Your task to perform on an android device: turn off improve location accuracy Image 0: 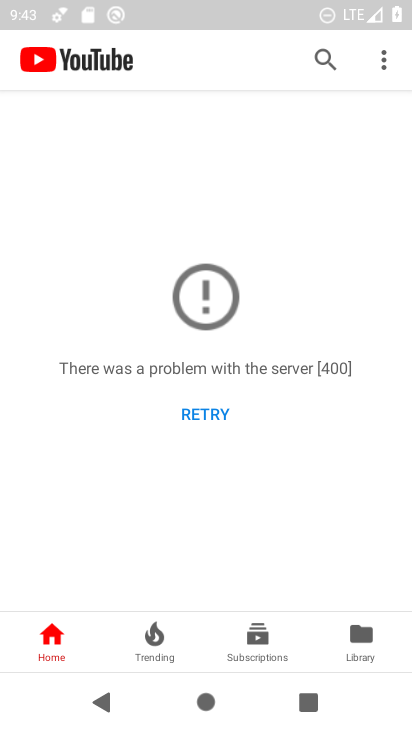
Step 0: press home button
Your task to perform on an android device: turn off improve location accuracy Image 1: 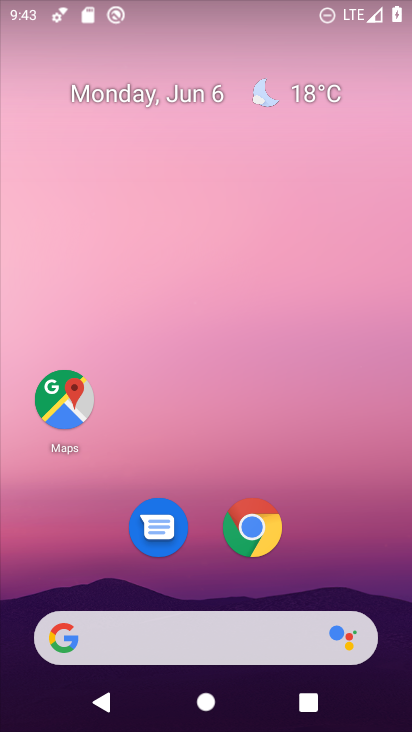
Step 1: drag from (350, 572) to (368, 161)
Your task to perform on an android device: turn off improve location accuracy Image 2: 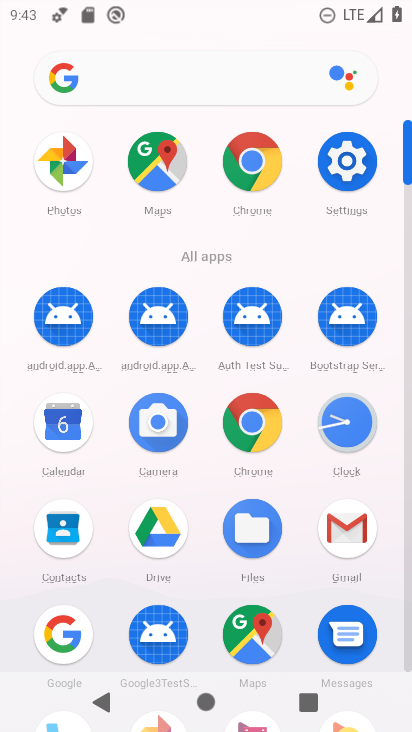
Step 2: click (354, 183)
Your task to perform on an android device: turn off improve location accuracy Image 3: 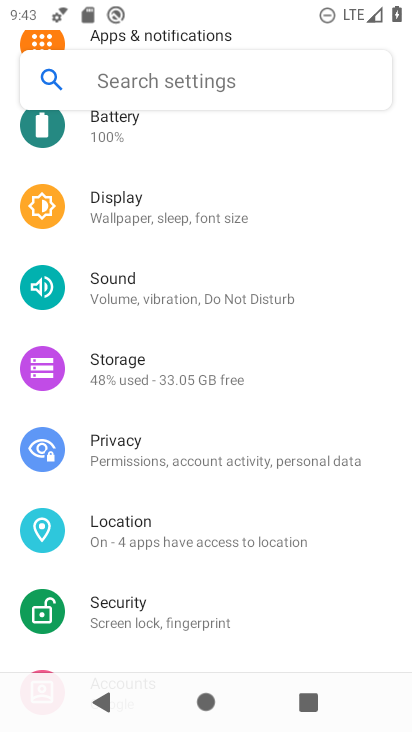
Step 3: drag from (306, 455) to (328, 248)
Your task to perform on an android device: turn off improve location accuracy Image 4: 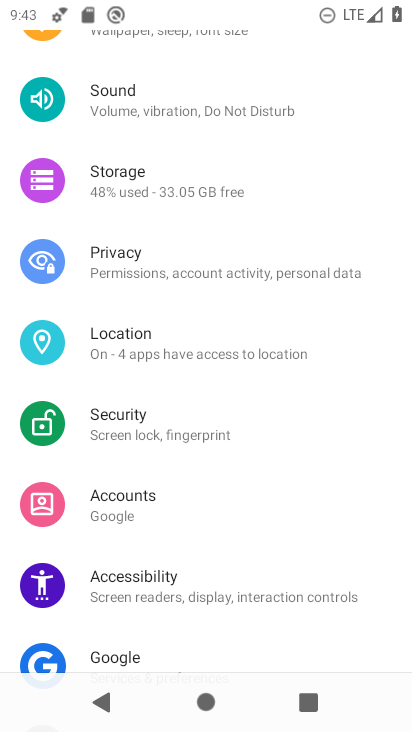
Step 4: drag from (331, 503) to (330, 294)
Your task to perform on an android device: turn off improve location accuracy Image 5: 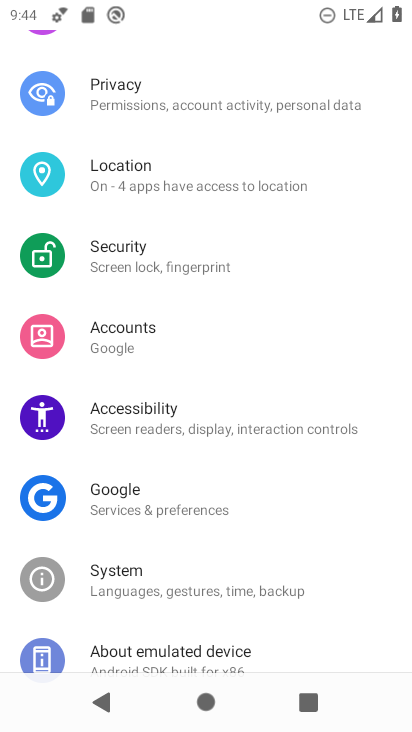
Step 5: drag from (319, 493) to (318, 353)
Your task to perform on an android device: turn off improve location accuracy Image 6: 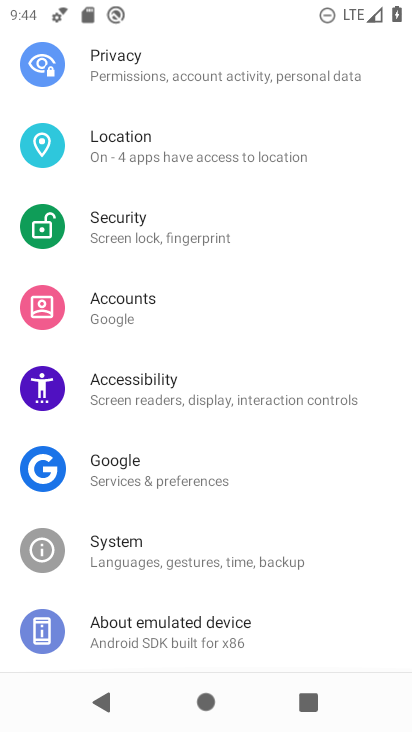
Step 6: drag from (317, 227) to (313, 399)
Your task to perform on an android device: turn off improve location accuracy Image 7: 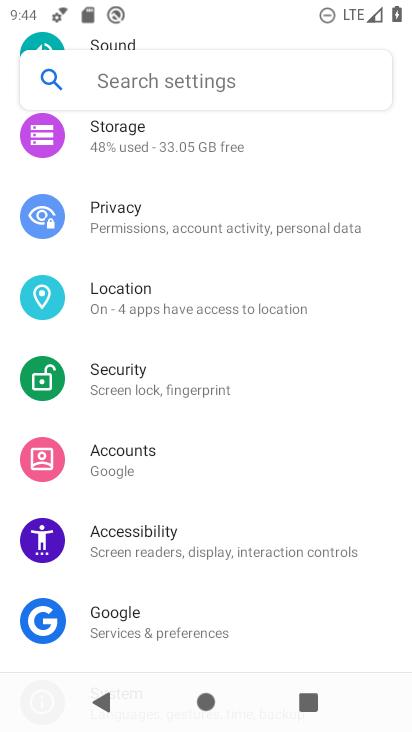
Step 7: click (248, 312)
Your task to perform on an android device: turn off improve location accuracy Image 8: 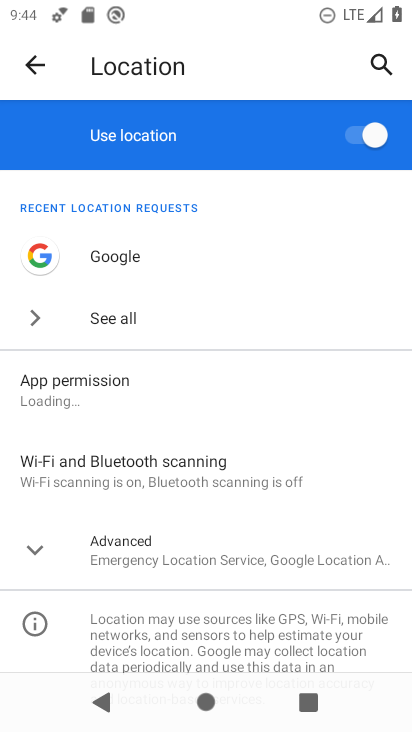
Step 8: drag from (324, 446) to (328, 318)
Your task to perform on an android device: turn off improve location accuracy Image 9: 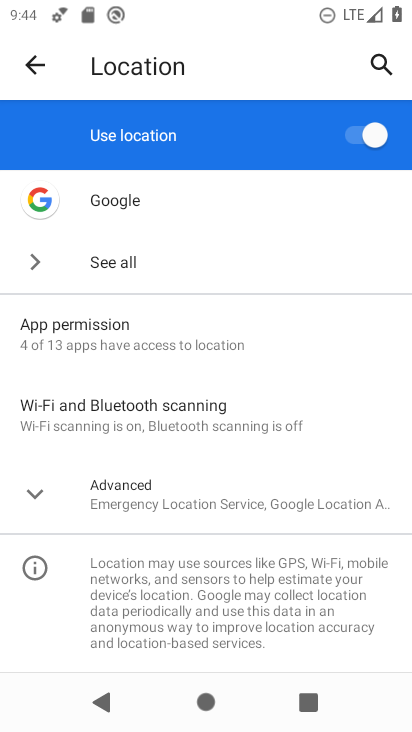
Step 9: click (194, 499)
Your task to perform on an android device: turn off improve location accuracy Image 10: 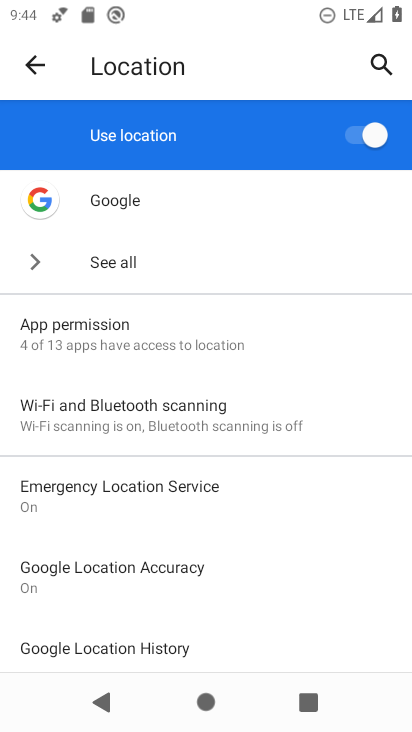
Step 10: drag from (268, 518) to (283, 348)
Your task to perform on an android device: turn off improve location accuracy Image 11: 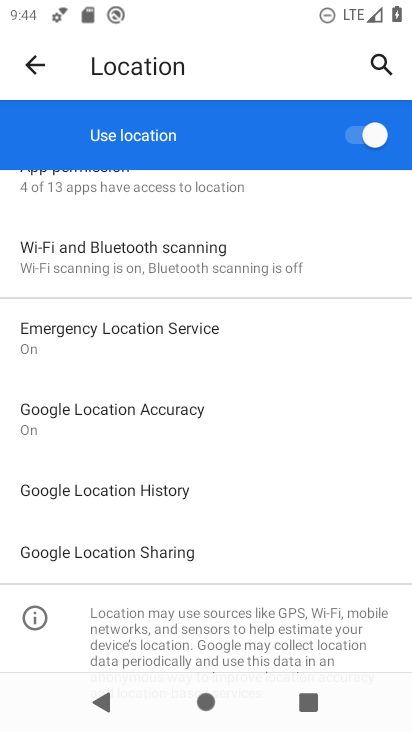
Step 11: click (153, 425)
Your task to perform on an android device: turn off improve location accuracy Image 12: 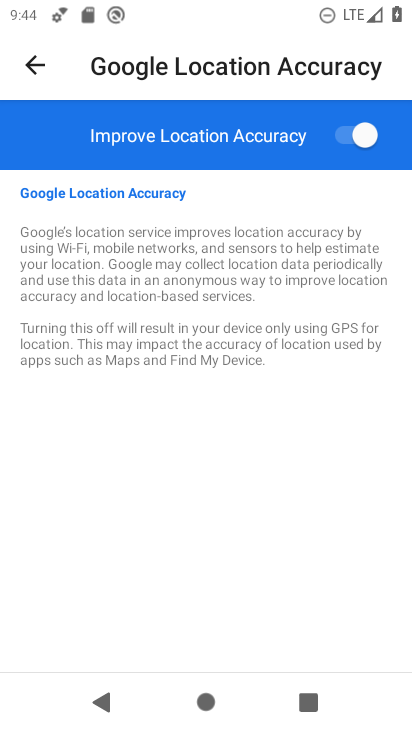
Step 12: click (355, 131)
Your task to perform on an android device: turn off improve location accuracy Image 13: 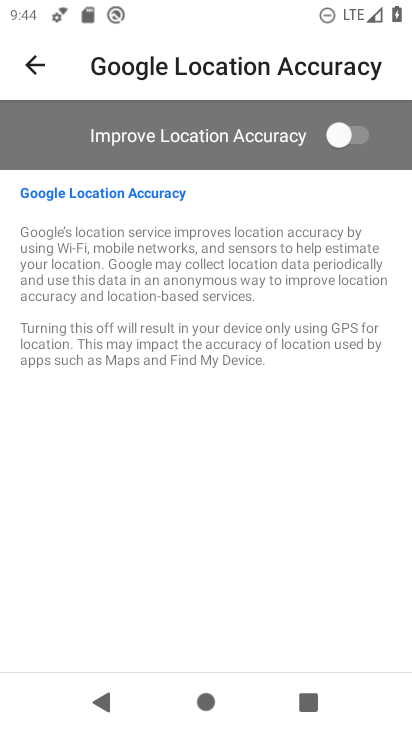
Step 13: task complete